Your task to perform on an android device: Open wifi settings Image 0: 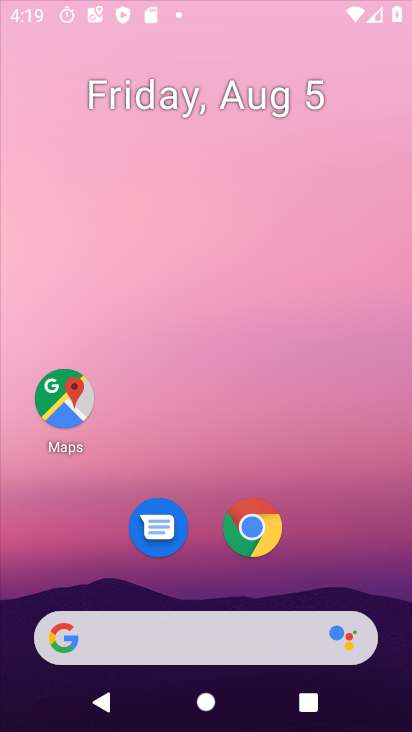
Step 0: press home button
Your task to perform on an android device: Open wifi settings Image 1: 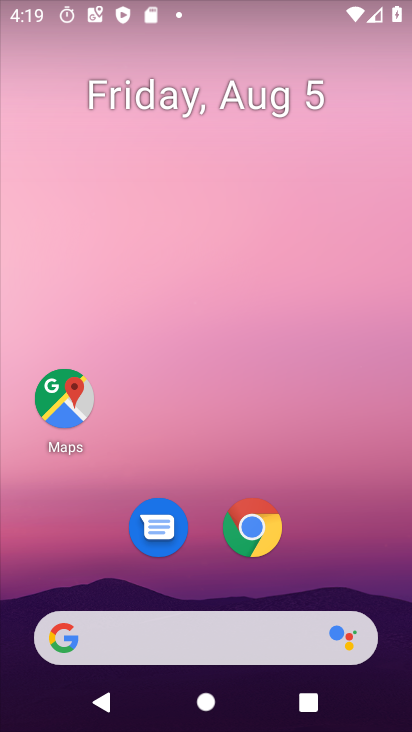
Step 1: drag from (206, 573) to (237, 48)
Your task to perform on an android device: Open wifi settings Image 2: 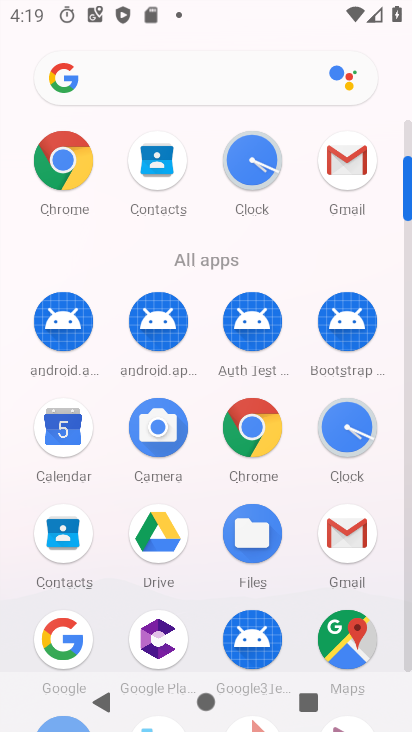
Step 2: drag from (202, 571) to (213, 125)
Your task to perform on an android device: Open wifi settings Image 3: 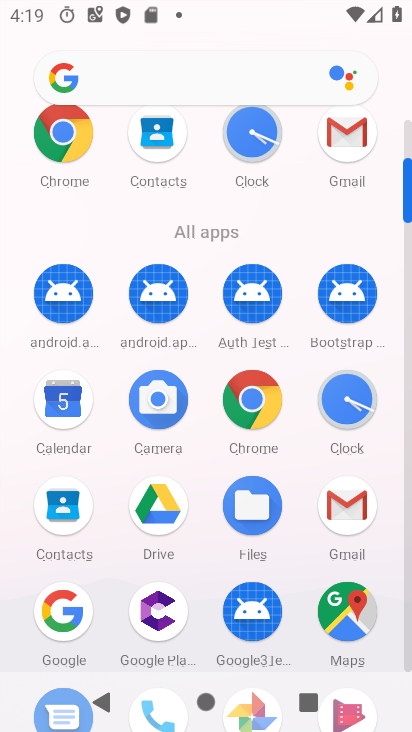
Step 3: drag from (198, 556) to (217, 113)
Your task to perform on an android device: Open wifi settings Image 4: 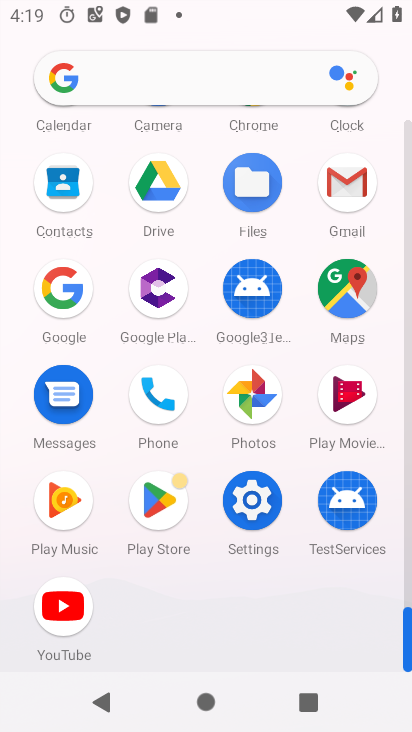
Step 4: click (249, 493)
Your task to perform on an android device: Open wifi settings Image 5: 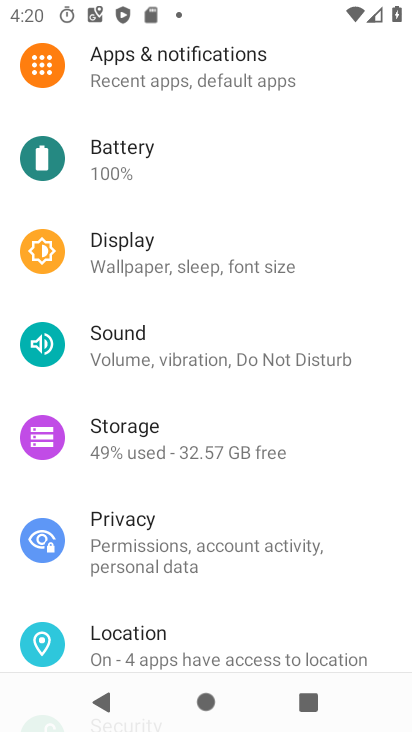
Step 5: drag from (151, 117) to (270, 731)
Your task to perform on an android device: Open wifi settings Image 6: 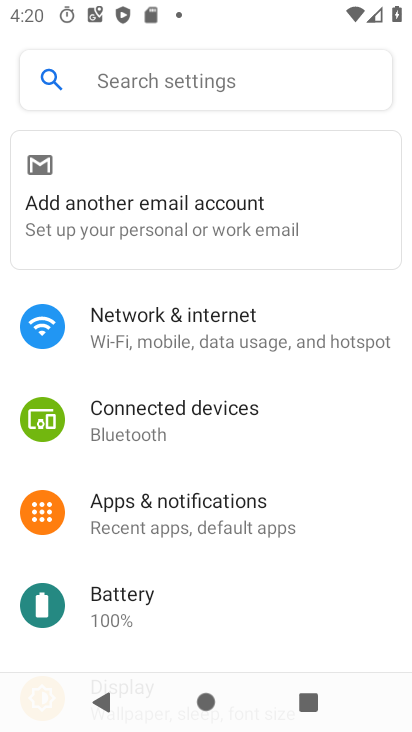
Step 6: click (169, 329)
Your task to perform on an android device: Open wifi settings Image 7: 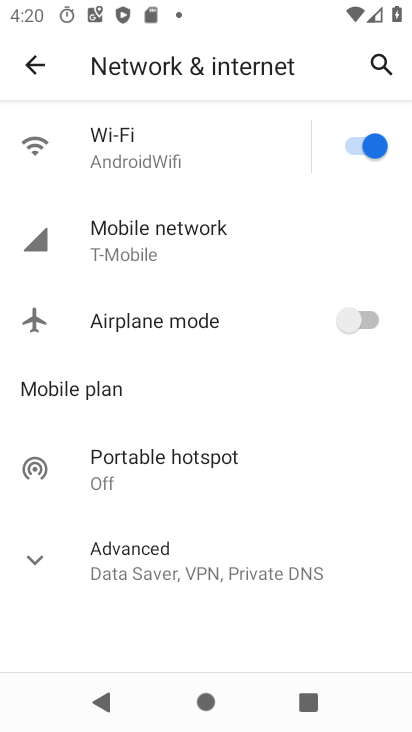
Step 7: click (191, 152)
Your task to perform on an android device: Open wifi settings Image 8: 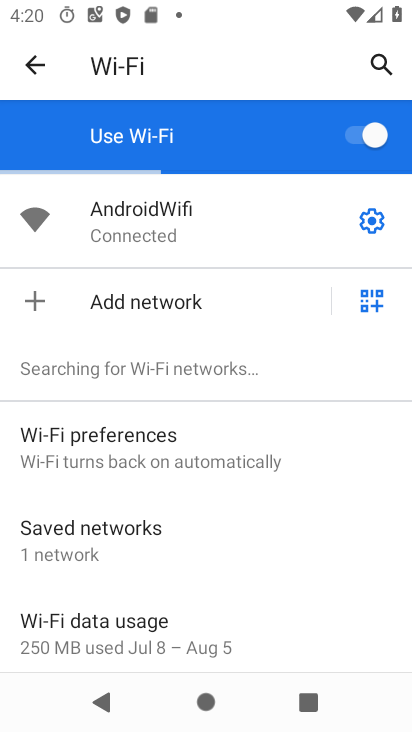
Step 8: task complete